Your task to perform on an android device: Search for vegetarian restaurants on Maps Image 0: 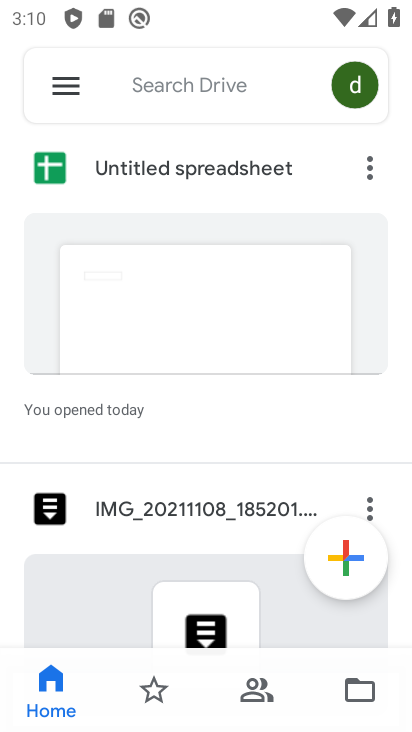
Step 0: press home button
Your task to perform on an android device: Search for vegetarian restaurants on Maps Image 1: 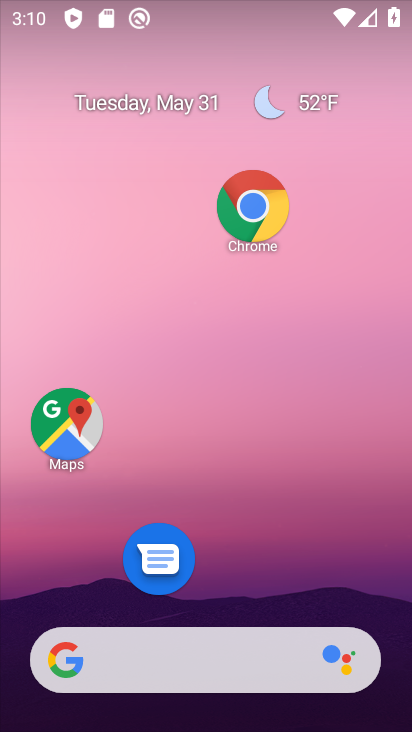
Step 1: click (72, 398)
Your task to perform on an android device: Search for vegetarian restaurants on Maps Image 2: 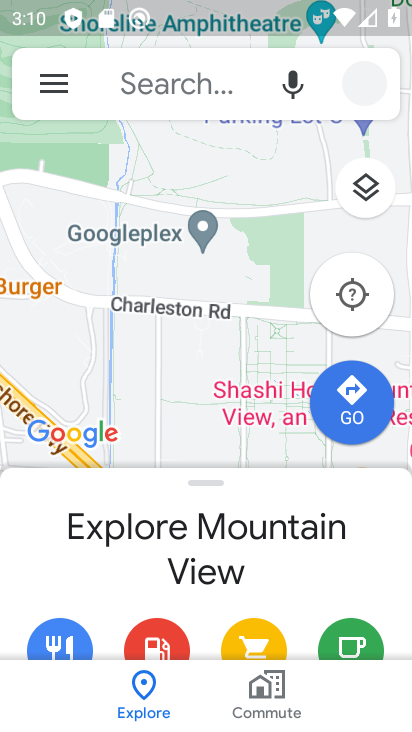
Step 2: click (162, 90)
Your task to perform on an android device: Search for vegetarian restaurants on Maps Image 3: 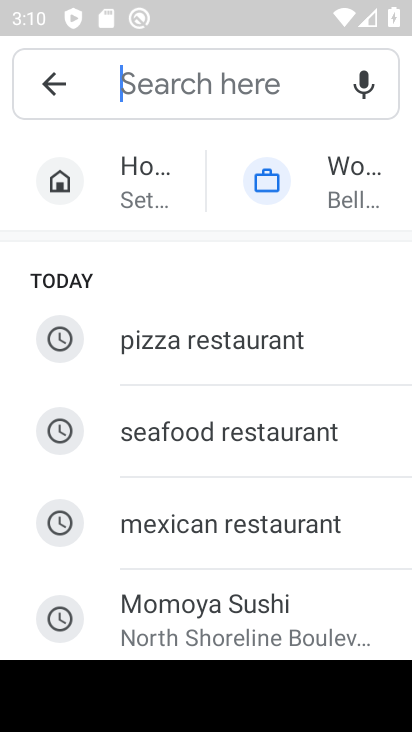
Step 3: type "vegetarian restaurants"
Your task to perform on an android device: Search for vegetarian restaurants on Maps Image 4: 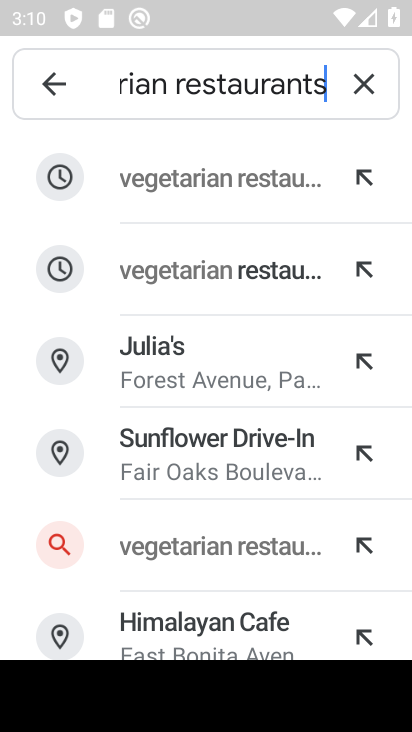
Step 4: click (260, 180)
Your task to perform on an android device: Search for vegetarian restaurants on Maps Image 5: 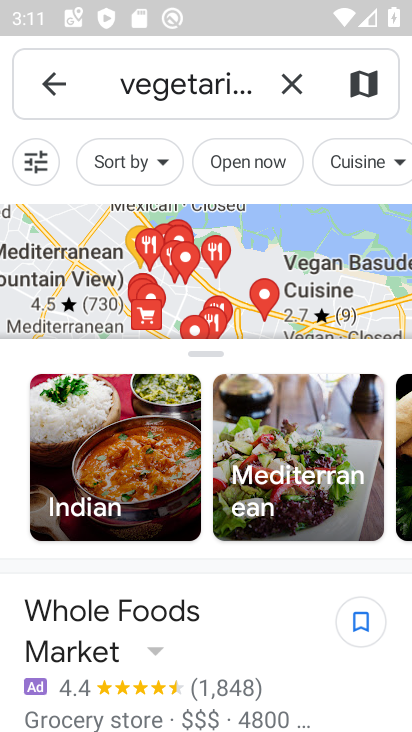
Step 5: task complete